Your task to perform on an android device: Go to eBay Image 0: 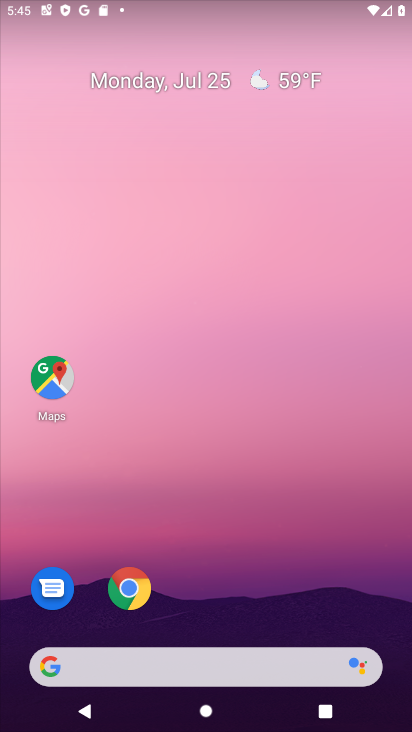
Step 0: click (126, 591)
Your task to perform on an android device: Go to eBay Image 1: 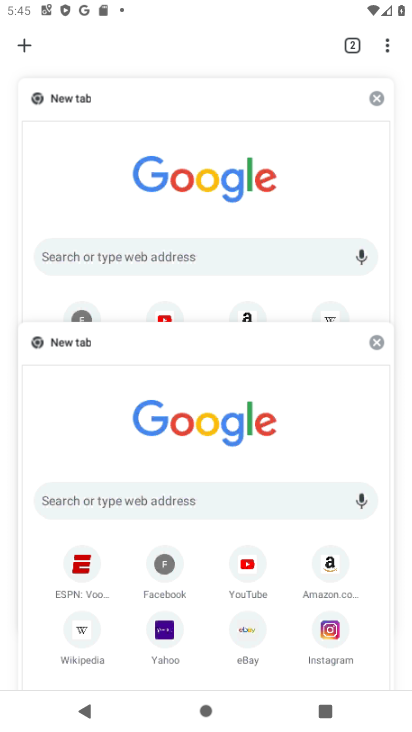
Step 1: click (314, 349)
Your task to perform on an android device: Go to eBay Image 2: 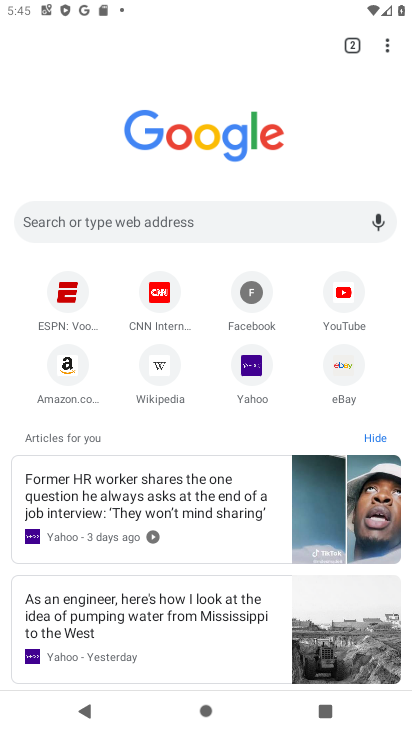
Step 2: click (351, 359)
Your task to perform on an android device: Go to eBay Image 3: 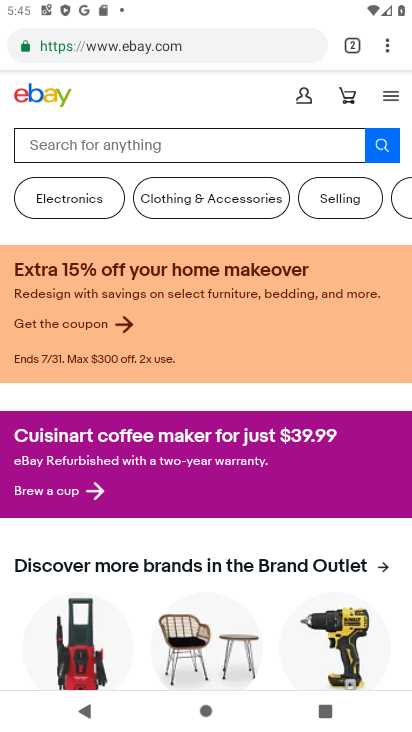
Step 3: task complete